Your task to perform on an android device: Open the stopwatch Image 0: 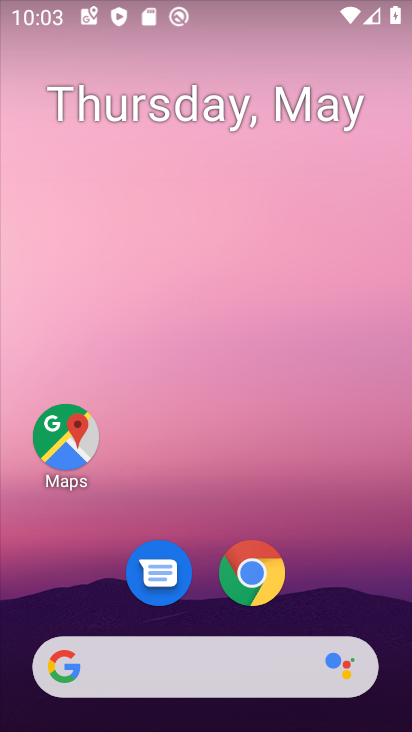
Step 0: drag from (213, 538) to (225, 216)
Your task to perform on an android device: Open the stopwatch Image 1: 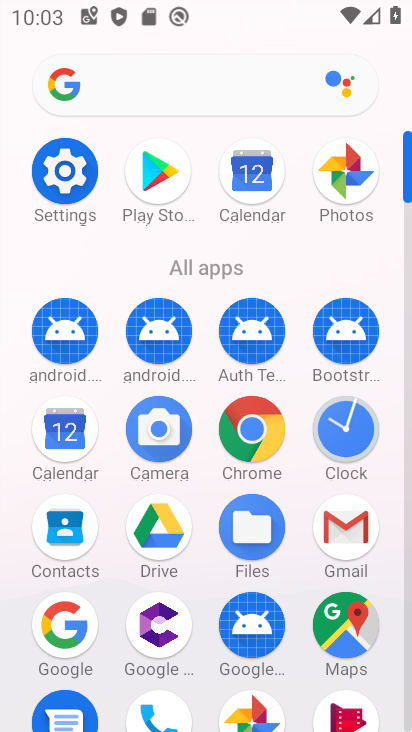
Step 1: click (320, 413)
Your task to perform on an android device: Open the stopwatch Image 2: 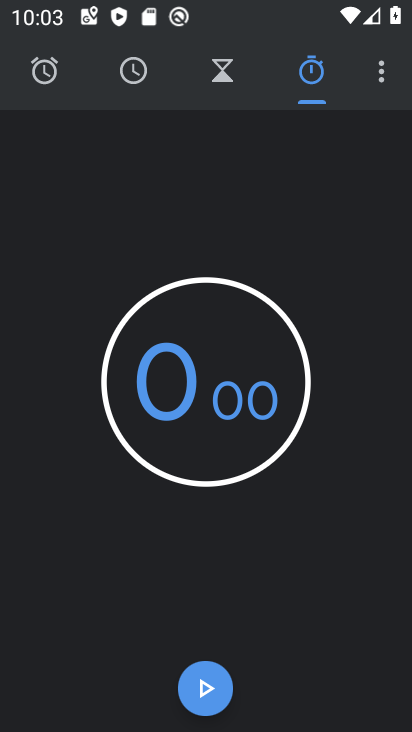
Step 2: task complete